Your task to perform on an android device: turn on bluetooth scan Image 0: 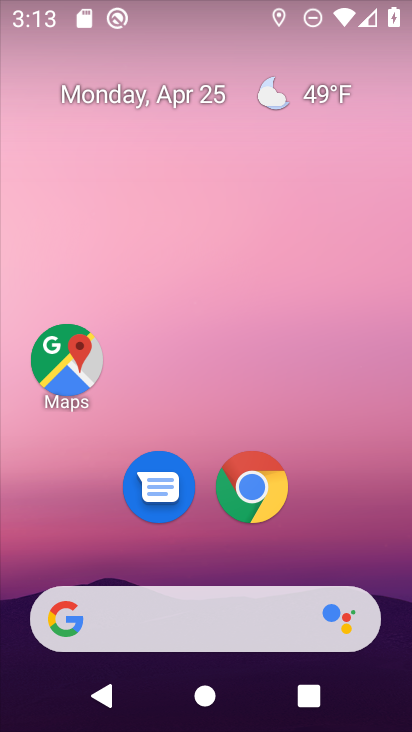
Step 0: drag from (390, 583) to (387, 4)
Your task to perform on an android device: turn on bluetooth scan Image 1: 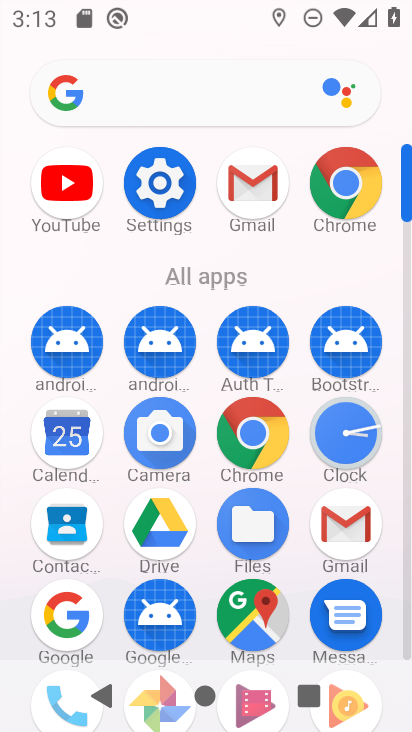
Step 1: click (153, 188)
Your task to perform on an android device: turn on bluetooth scan Image 2: 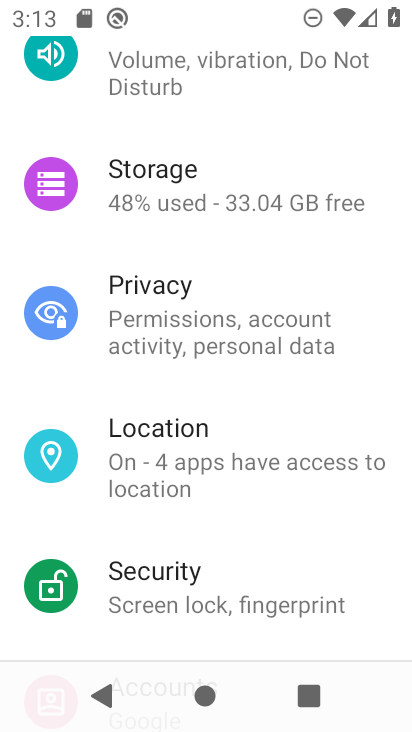
Step 2: click (158, 462)
Your task to perform on an android device: turn on bluetooth scan Image 3: 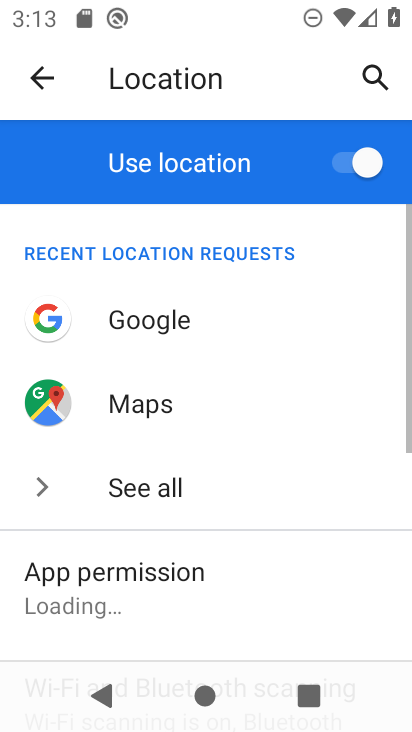
Step 3: drag from (282, 516) to (290, 66)
Your task to perform on an android device: turn on bluetooth scan Image 4: 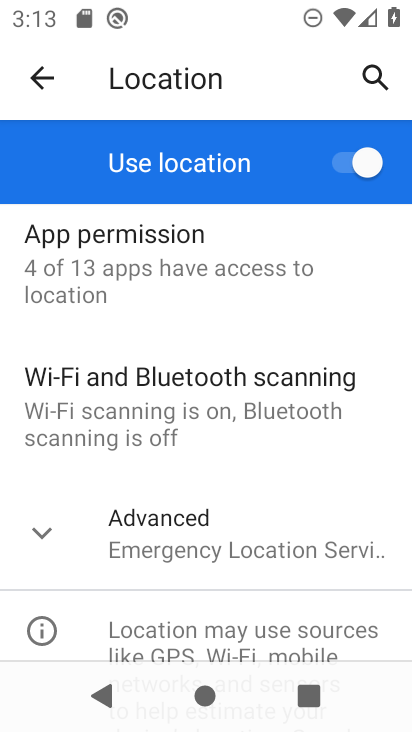
Step 4: click (147, 404)
Your task to perform on an android device: turn on bluetooth scan Image 5: 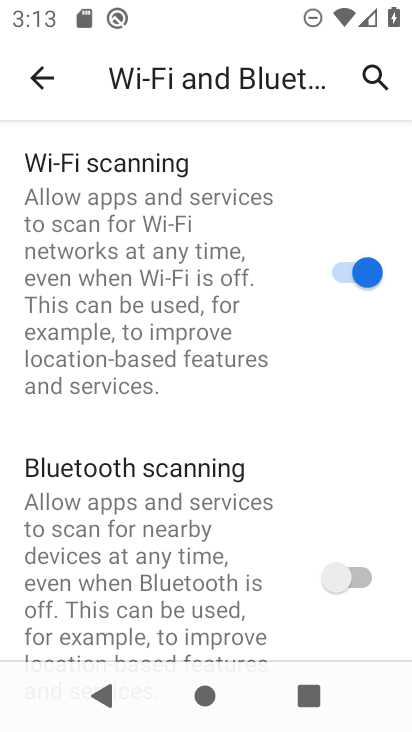
Step 5: click (329, 584)
Your task to perform on an android device: turn on bluetooth scan Image 6: 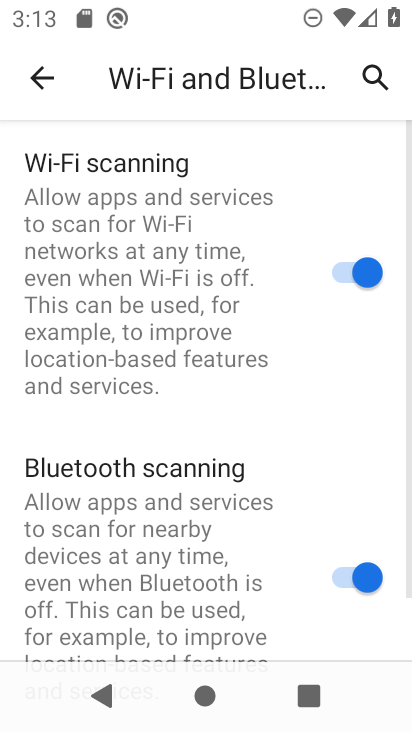
Step 6: task complete